Your task to perform on an android device: change text size in settings app Image 0: 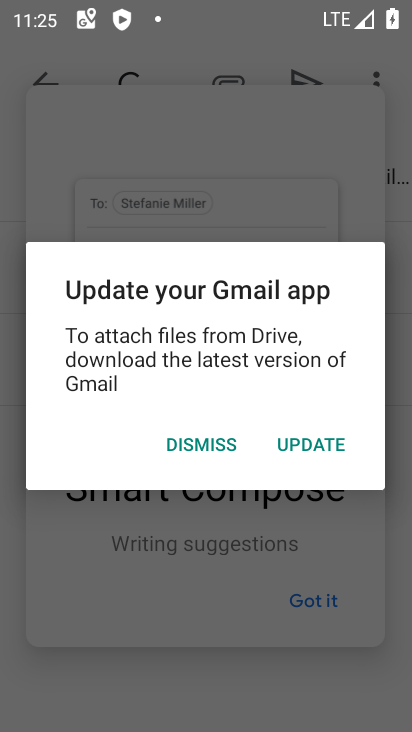
Step 0: press home button
Your task to perform on an android device: change text size in settings app Image 1: 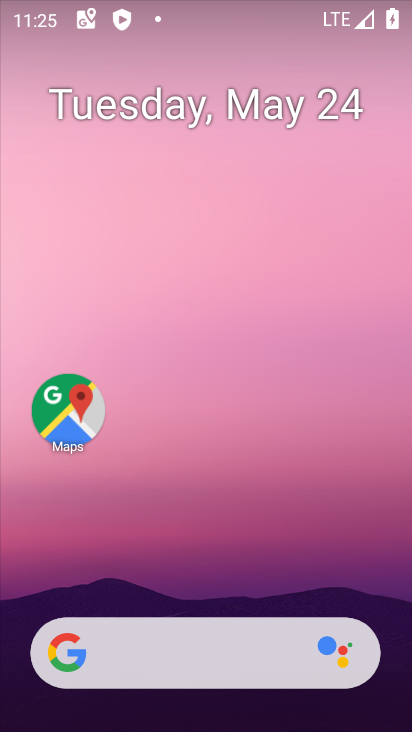
Step 1: drag from (215, 631) to (218, 20)
Your task to perform on an android device: change text size in settings app Image 2: 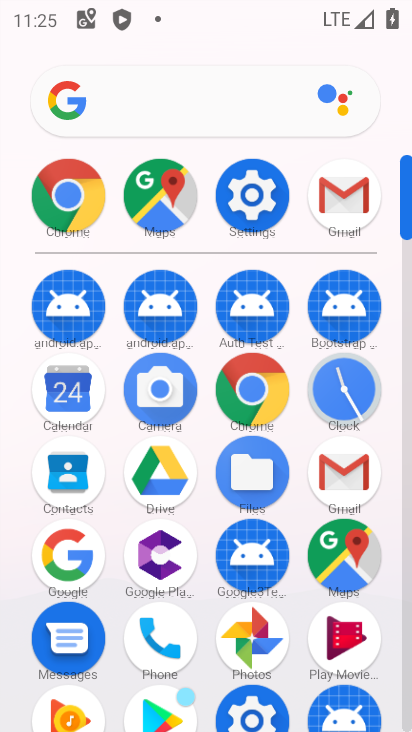
Step 2: click (259, 202)
Your task to perform on an android device: change text size in settings app Image 3: 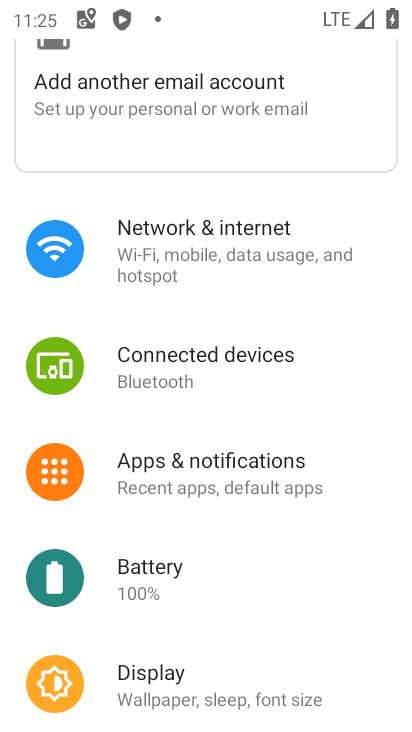
Step 3: click (204, 698)
Your task to perform on an android device: change text size in settings app Image 4: 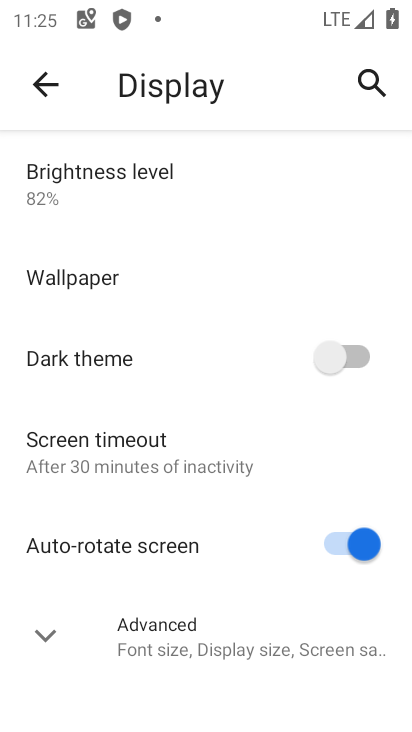
Step 4: click (187, 649)
Your task to perform on an android device: change text size in settings app Image 5: 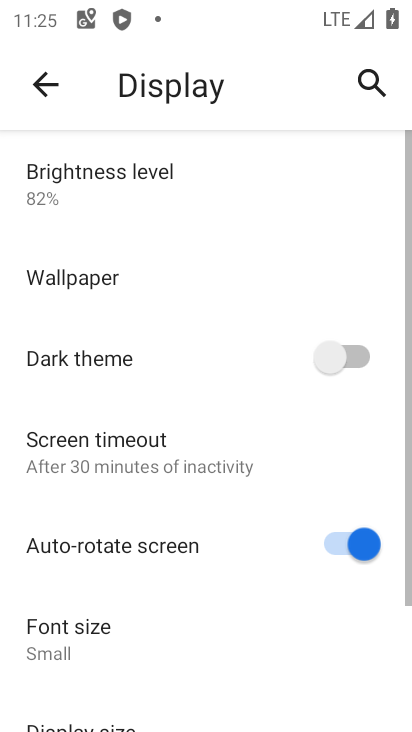
Step 5: drag from (214, 628) to (244, 241)
Your task to perform on an android device: change text size in settings app Image 6: 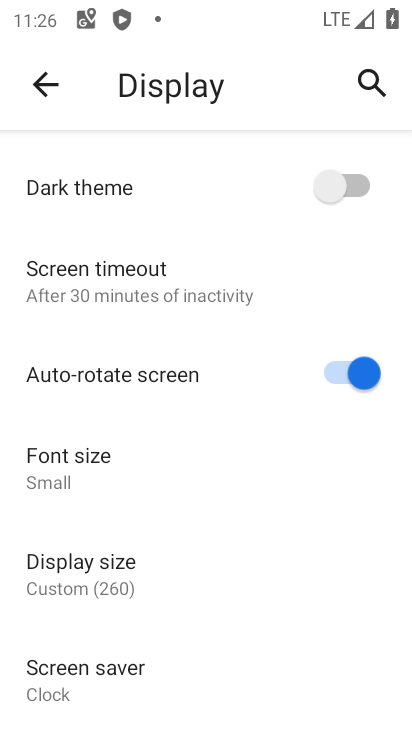
Step 6: click (131, 445)
Your task to perform on an android device: change text size in settings app Image 7: 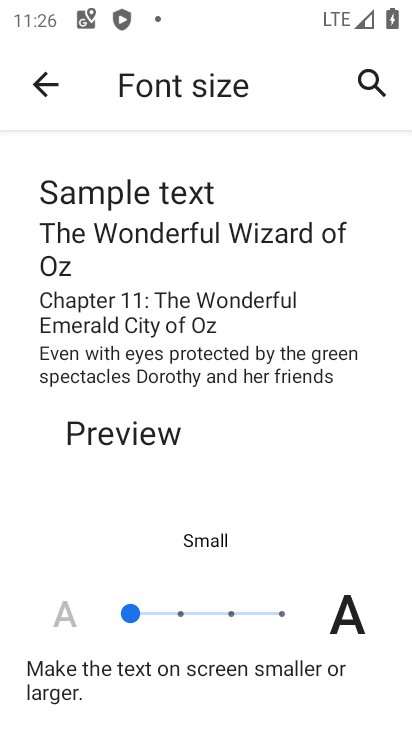
Step 7: click (176, 627)
Your task to perform on an android device: change text size in settings app Image 8: 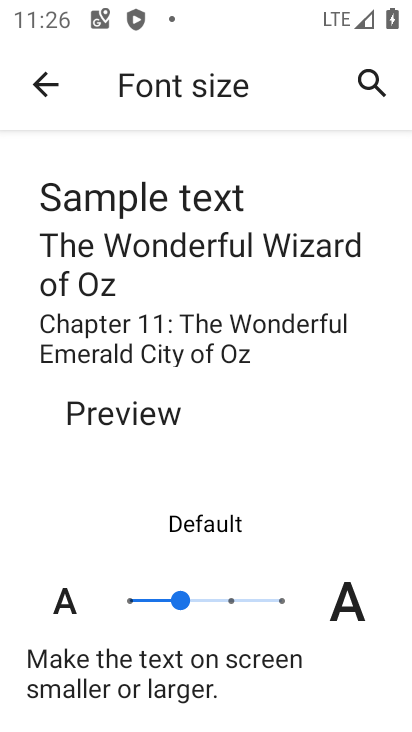
Step 8: task complete